Your task to perform on an android device: Go to location settings Image 0: 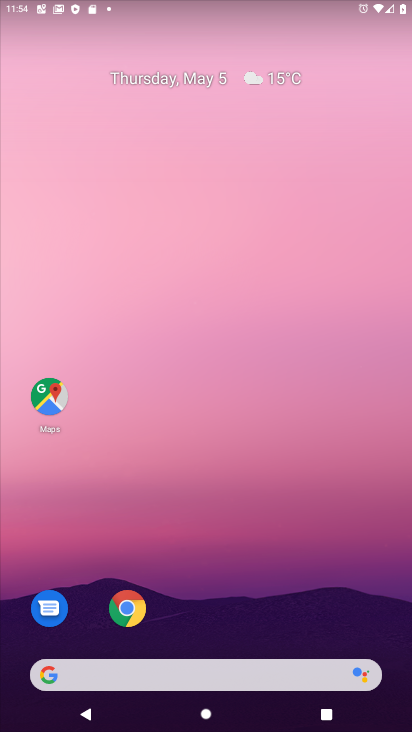
Step 0: drag from (186, 629) to (190, 77)
Your task to perform on an android device: Go to location settings Image 1: 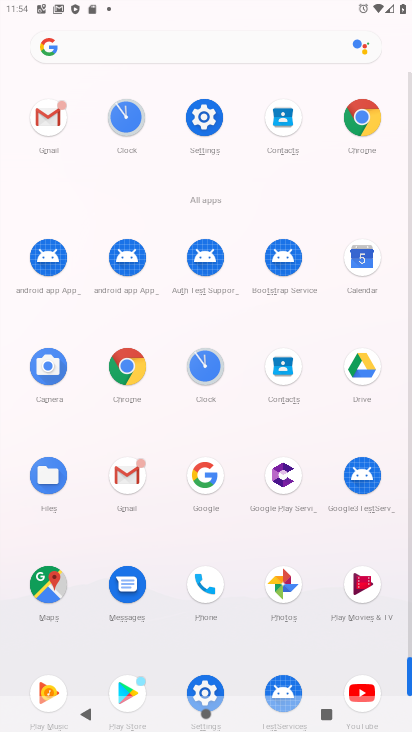
Step 1: click (203, 131)
Your task to perform on an android device: Go to location settings Image 2: 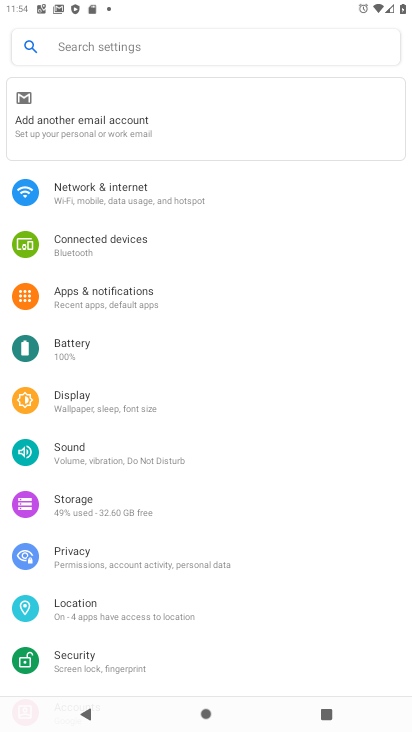
Step 2: click (121, 606)
Your task to perform on an android device: Go to location settings Image 3: 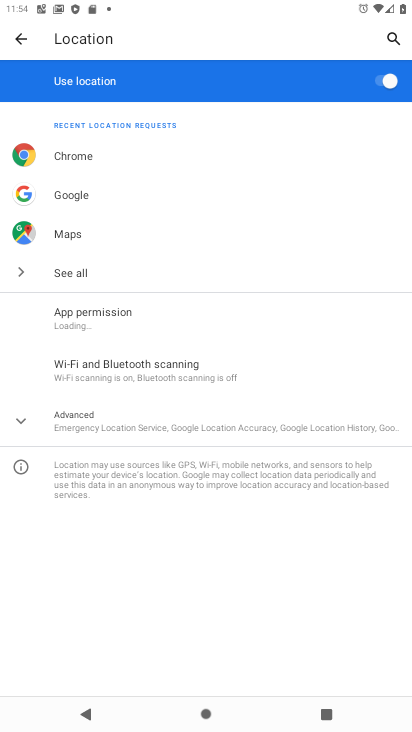
Step 3: task complete